Your task to perform on an android device: turn off translation in the chrome app Image 0: 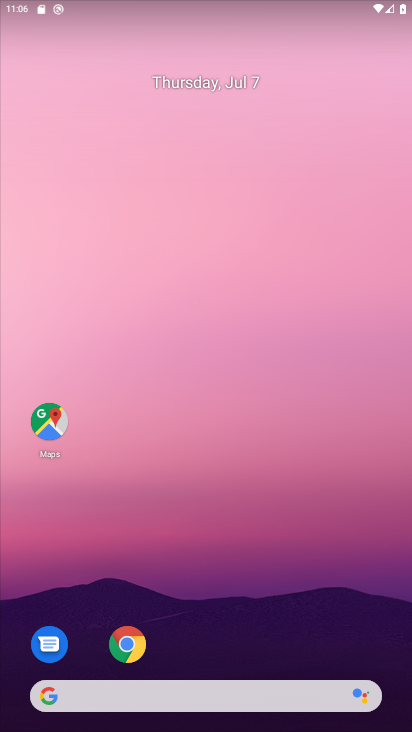
Step 0: click (236, 181)
Your task to perform on an android device: turn off translation in the chrome app Image 1: 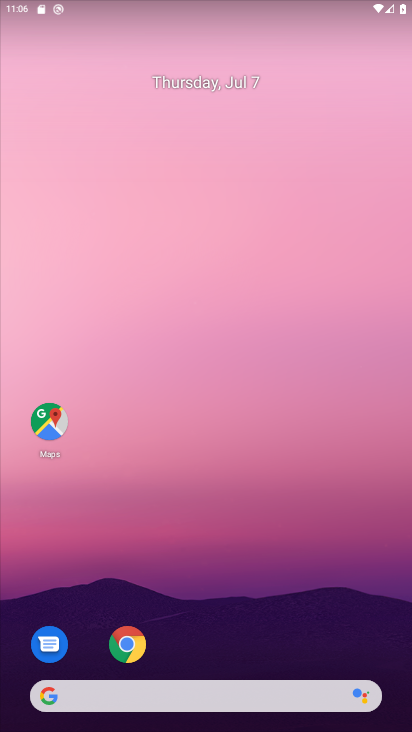
Step 1: click (129, 645)
Your task to perform on an android device: turn off translation in the chrome app Image 2: 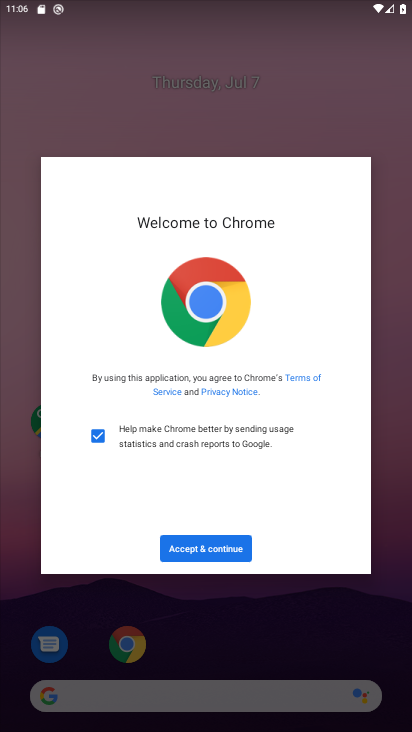
Step 2: click (208, 542)
Your task to perform on an android device: turn off translation in the chrome app Image 3: 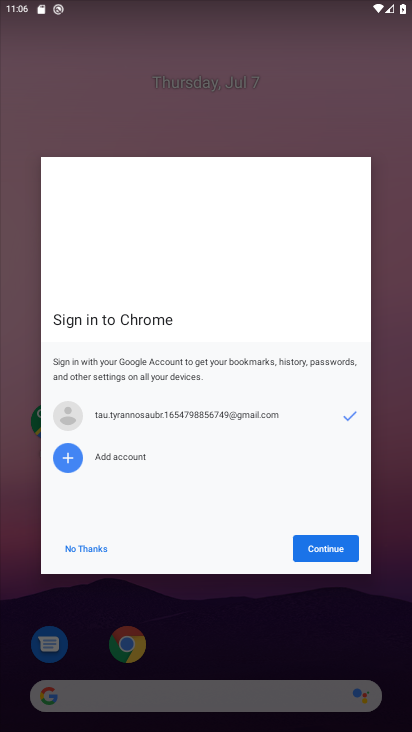
Step 3: click (310, 548)
Your task to perform on an android device: turn off translation in the chrome app Image 4: 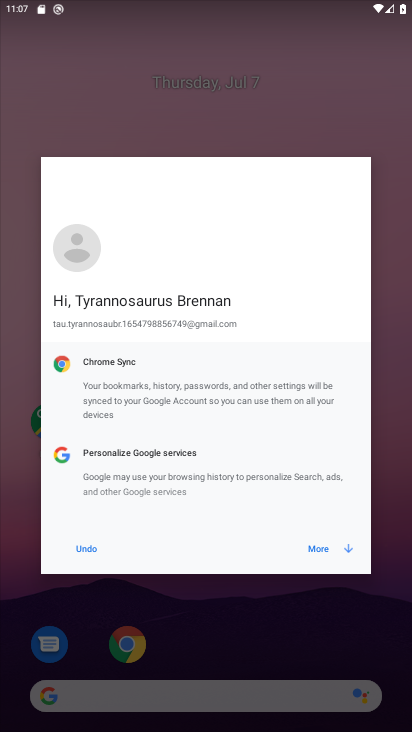
Step 4: click (321, 548)
Your task to perform on an android device: turn off translation in the chrome app Image 5: 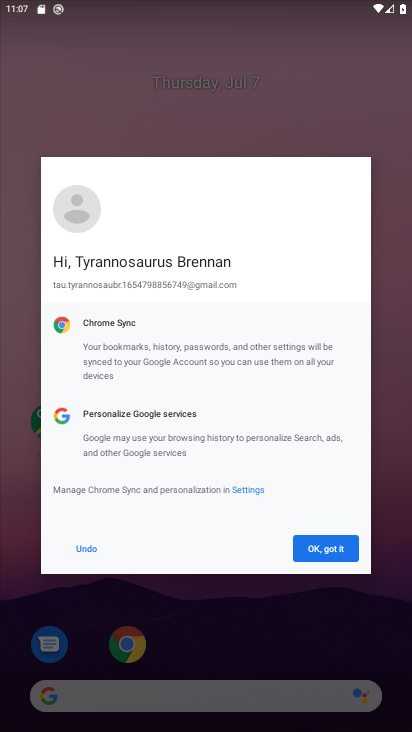
Step 5: click (321, 548)
Your task to perform on an android device: turn off translation in the chrome app Image 6: 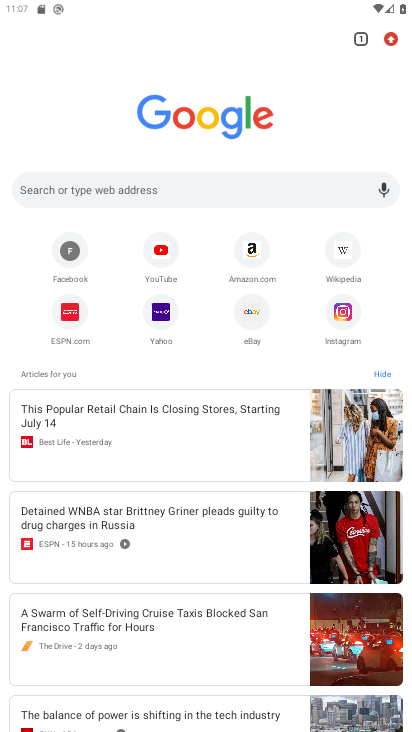
Step 6: click (391, 38)
Your task to perform on an android device: turn off translation in the chrome app Image 7: 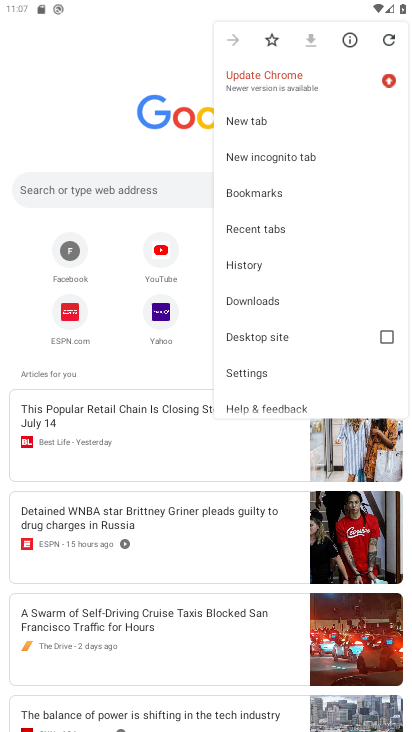
Step 7: click (248, 372)
Your task to perform on an android device: turn off translation in the chrome app Image 8: 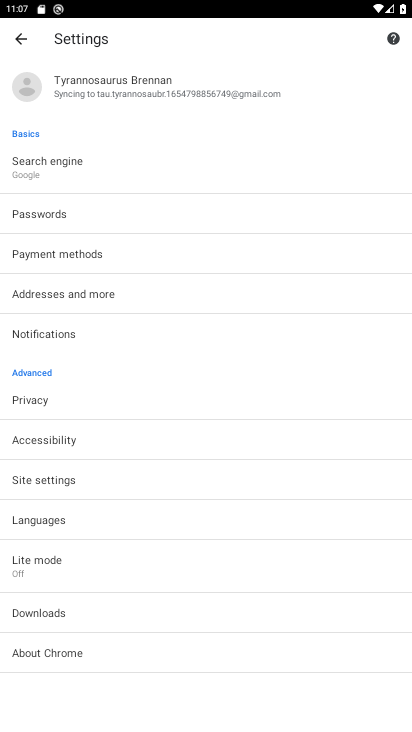
Step 8: click (53, 520)
Your task to perform on an android device: turn off translation in the chrome app Image 9: 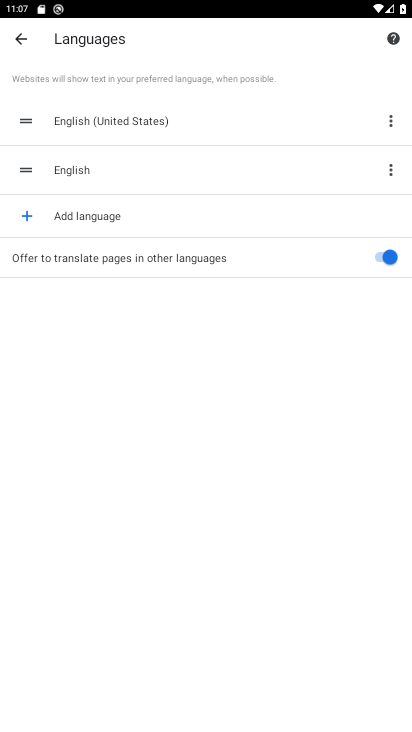
Step 9: click (383, 251)
Your task to perform on an android device: turn off translation in the chrome app Image 10: 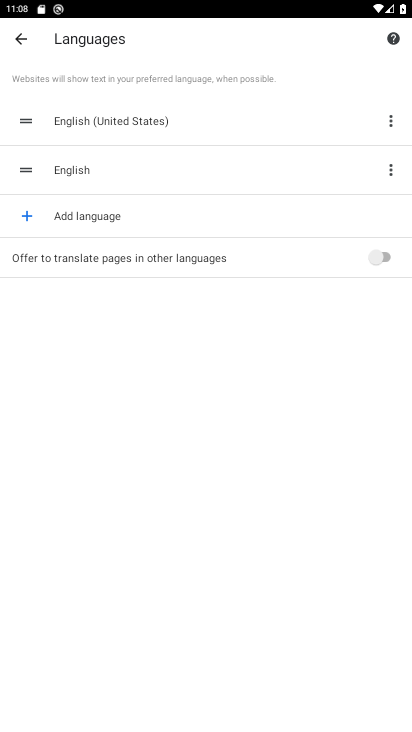
Step 10: task complete